Your task to perform on an android device: check storage Image 0: 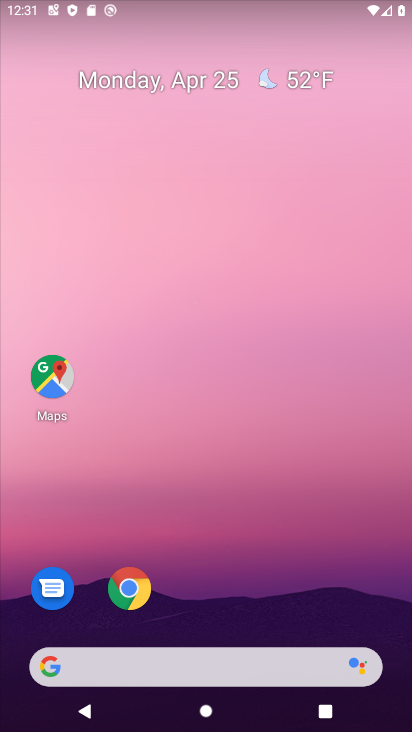
Step 0: drag from (152, 644) to (270, 7)
Your task to perform on an android device: check storage Image 1: 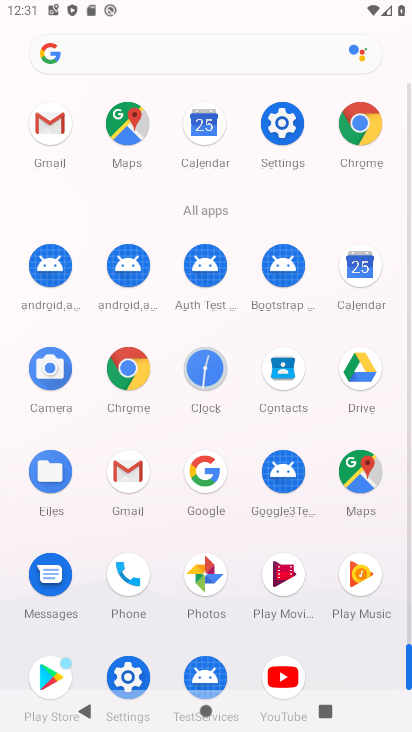
Step 1: click (115, 666)
Your task to perform on an android device: check storage Image 2: 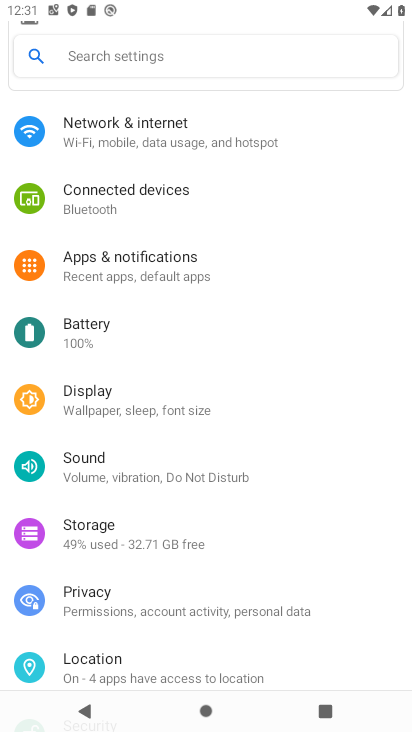
Step 2: click (123, 542)
Your task to perform on an android device: check storage Image 3: 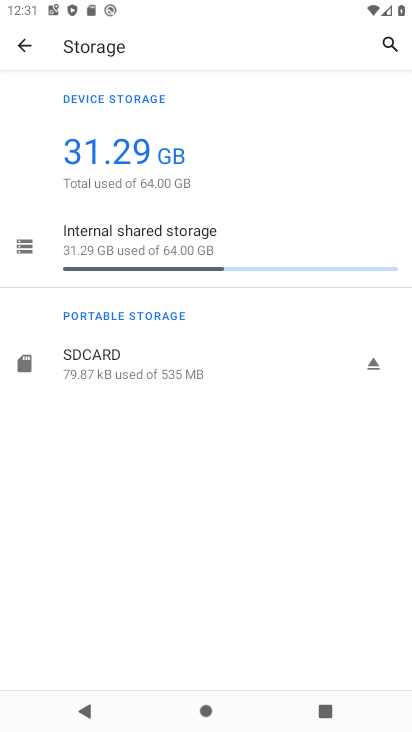
Step 3: click (210, 177)
Your task to perform on an android device: check storage Image 4: 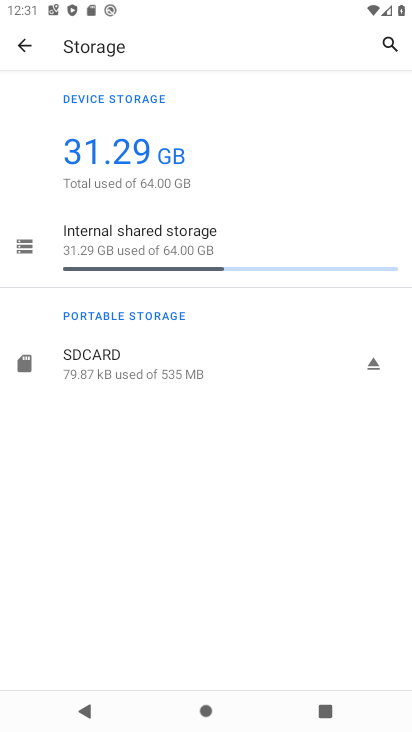
Step 4: click (225, 265)
Your task to perform on an android device: check storage Image 5: 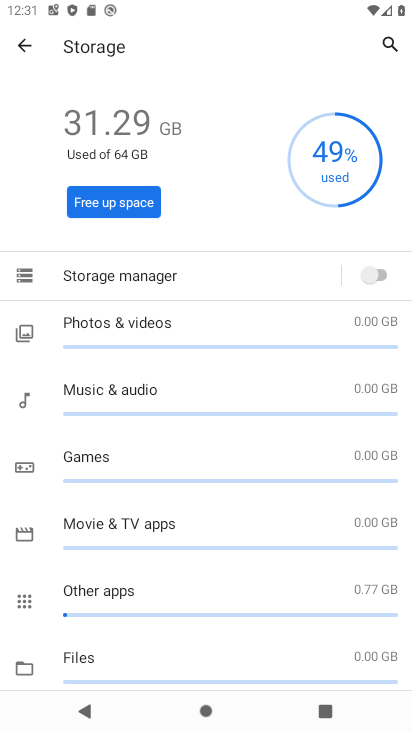
Step 5: task complete